Your task to perform on an android device: find photos in the google photos app Image 0: 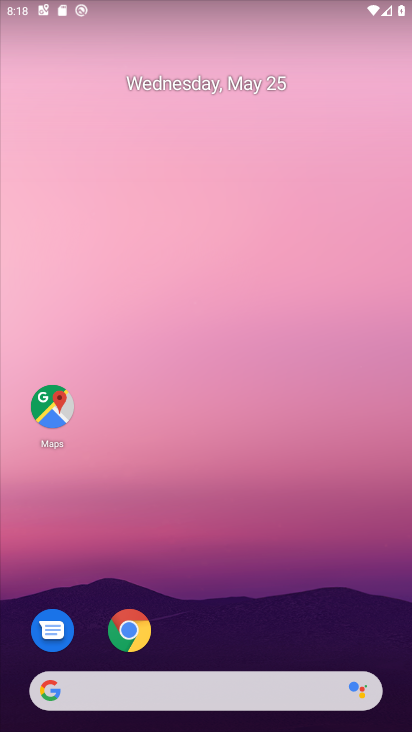
Step 0: drag from (201, 619) to (193, 247)
Your task to perform on an android device: find photos in the google photos app Image 1: 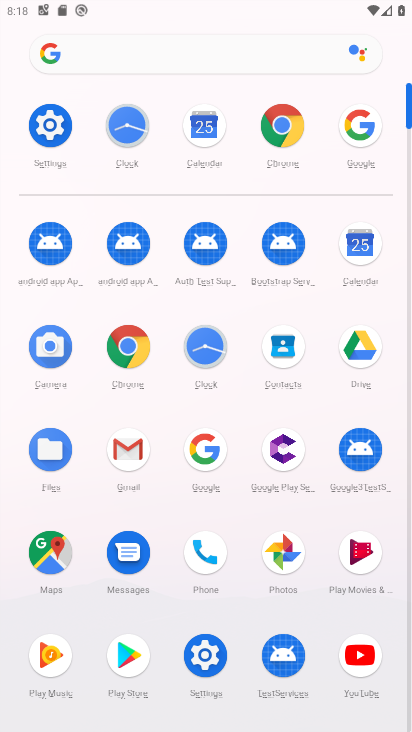
Step 1: click (278, 559)
Your task to perform on an android device: find photos in the google photos app Image 2: 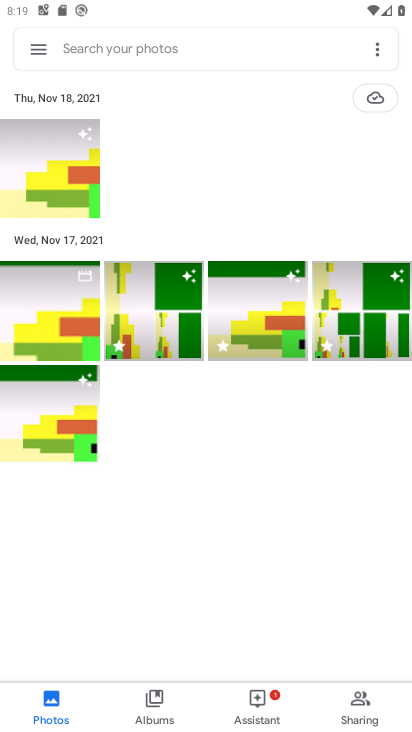
Step 2: task complete